Your task to perform on an android device: Go to ESPN.com Image 0: 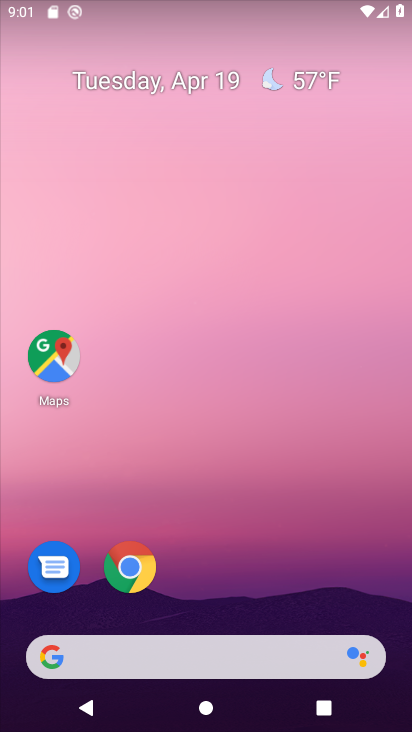
Step 0: click (135, 572)
Your task to perform on an android device: Go to ESPN.com Image 1: 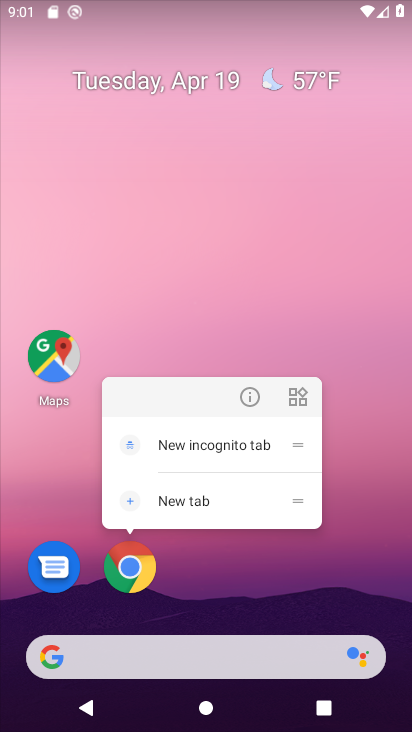
Step 1: click (142, 563)
Your task to perform on an android device: Go to ESPN.com Image 2: 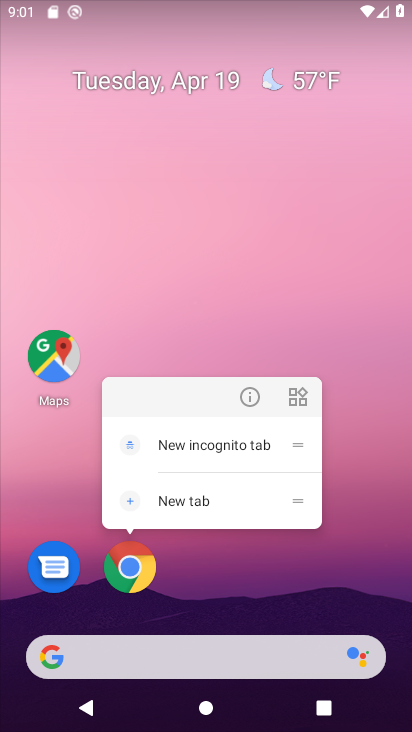
Step 2: click (187, 656)
Your task to perform on an android device: Go to ESPN.com Image 3: 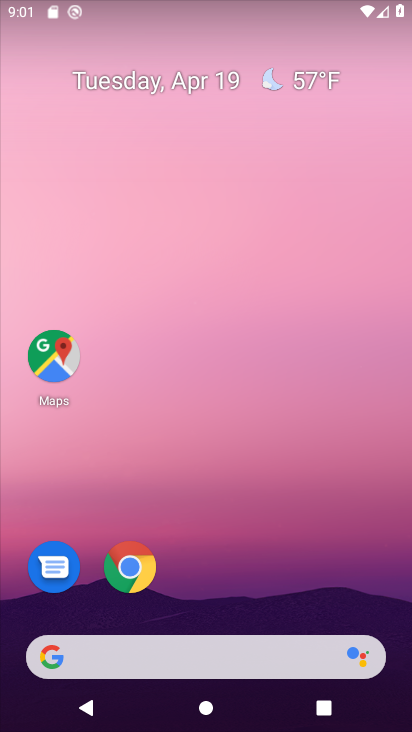
Step 3: type "espn.com"
Your task to perform on an android device: Go to ESPN.com Image 4: 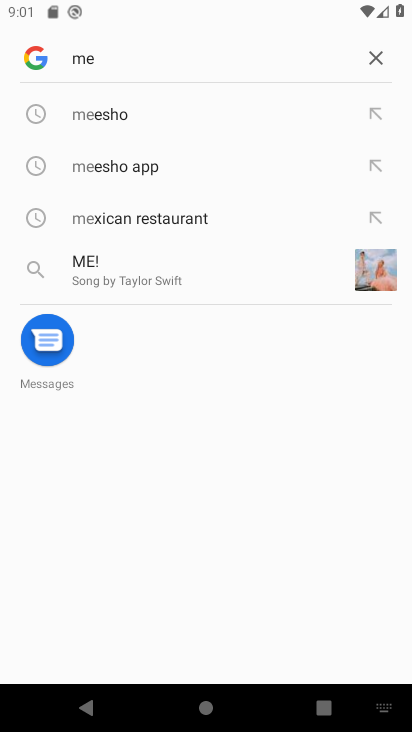
Step 4: type "espn.com"
Your task to perform on an android device: Go to ESPN.com Image 5: 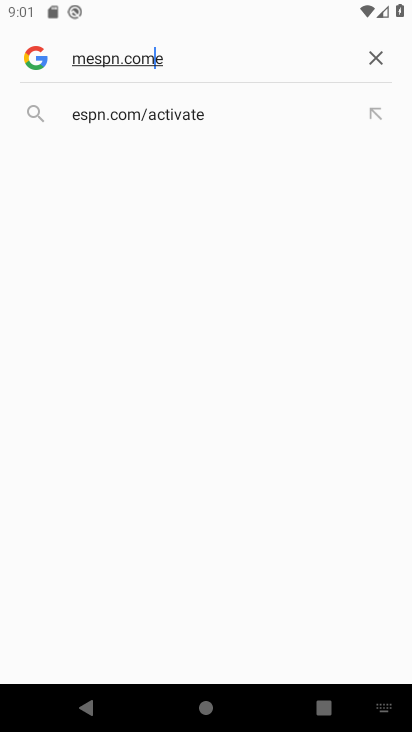
Step 5: click (135, 108)
Your task to perform on an android device: Go to ESPN.com Image 6: 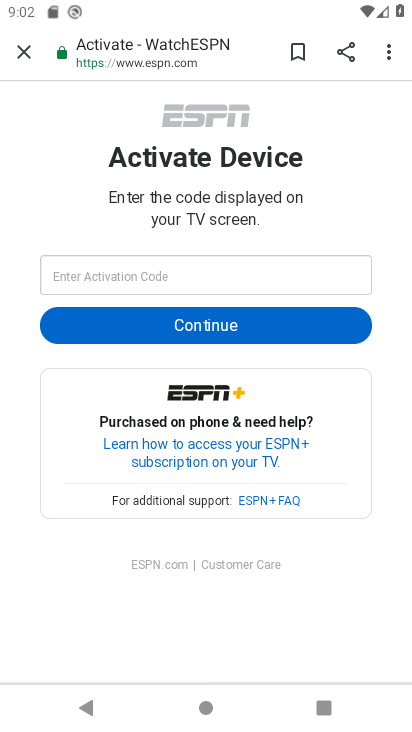
Step 6: task complete